Your task to perform on an android device: open app "Facebook" Image 0: 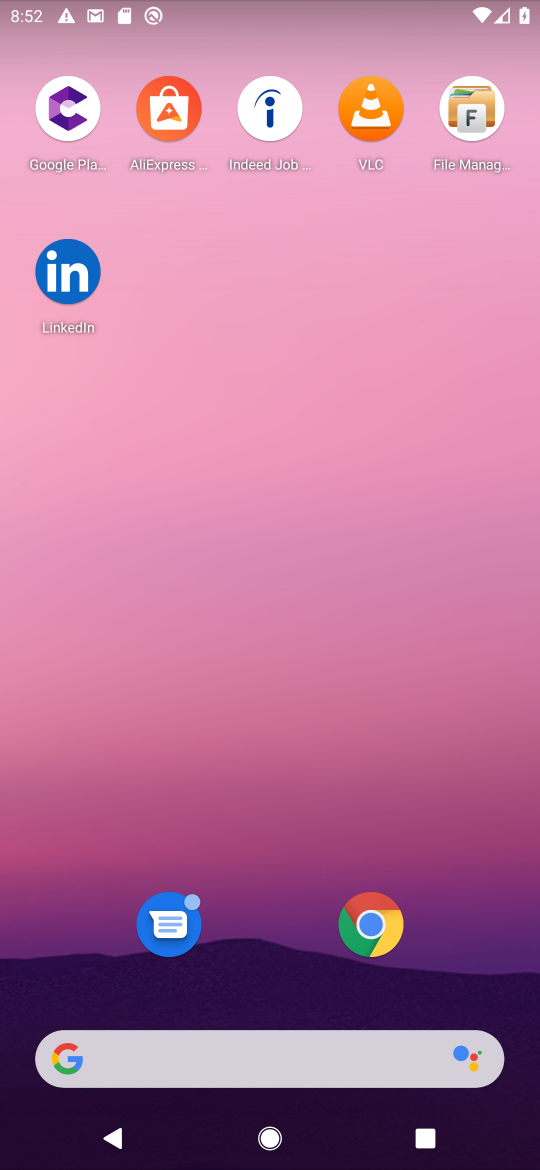
Step 0: press home button
Your task to perform on an android device: open app "Facebook" Image 1: 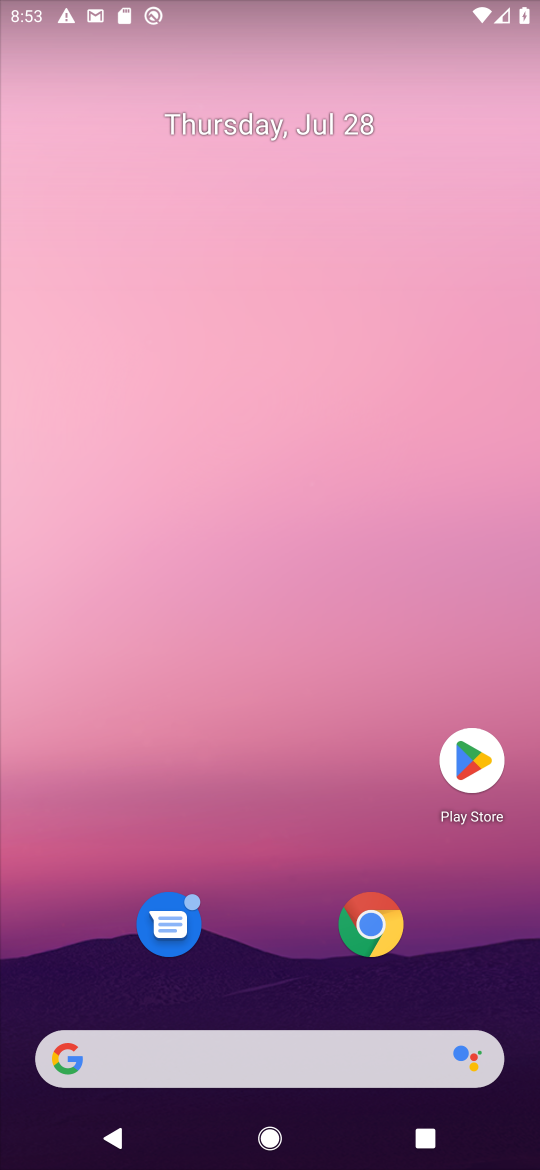
Step 1: click (472, 751)
Your task to perform on an android device: open app "Facebook" Image 2: 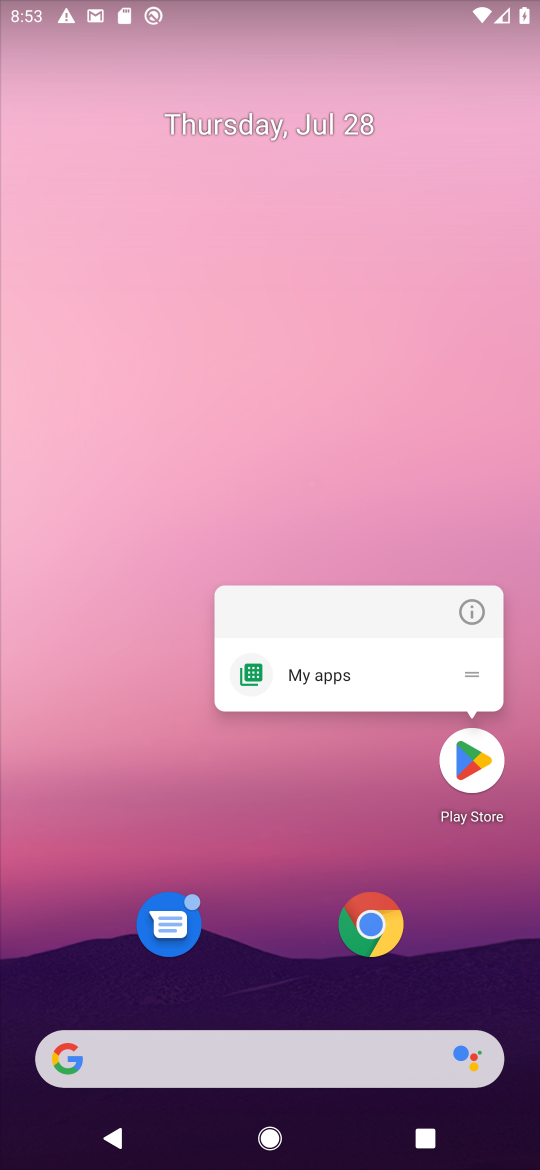
Step 2: click (456, 763)
Your task to perform on an android device: open app "Facebook" Image 3: 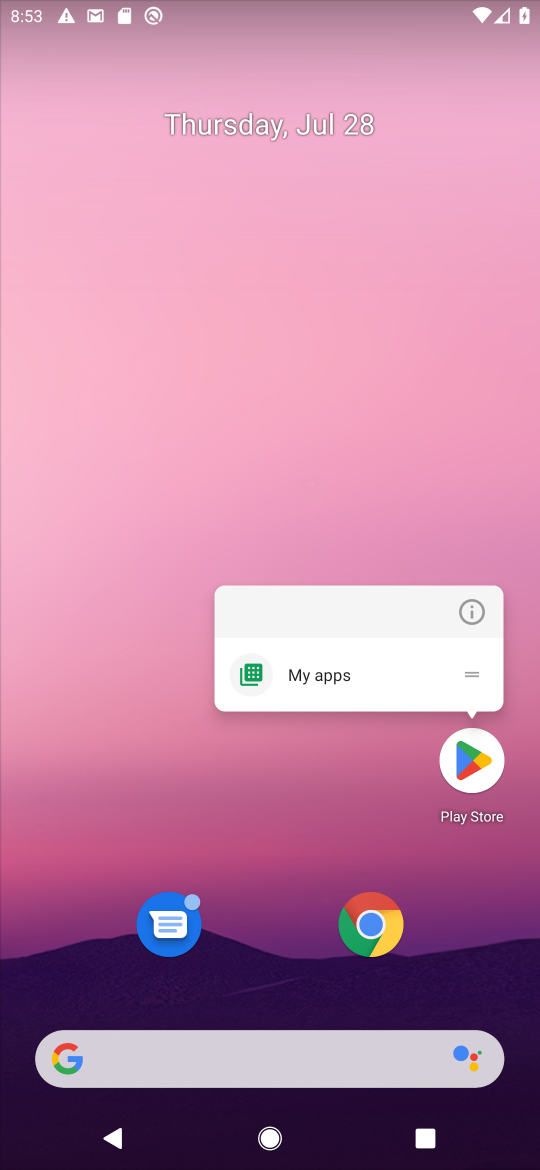
Step 3: click (470, 767)
Your task to perform on an android device: open app "Facebook" Image 4: 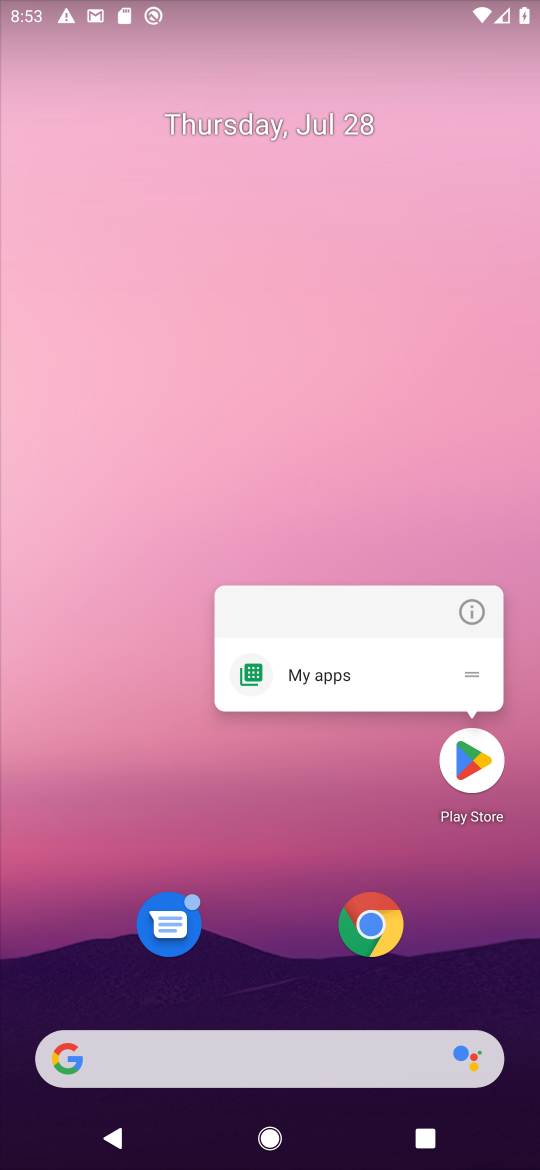
Step 4: click (470, 773)
Your task to perform on an android device: open app "Facebook" Image 5: 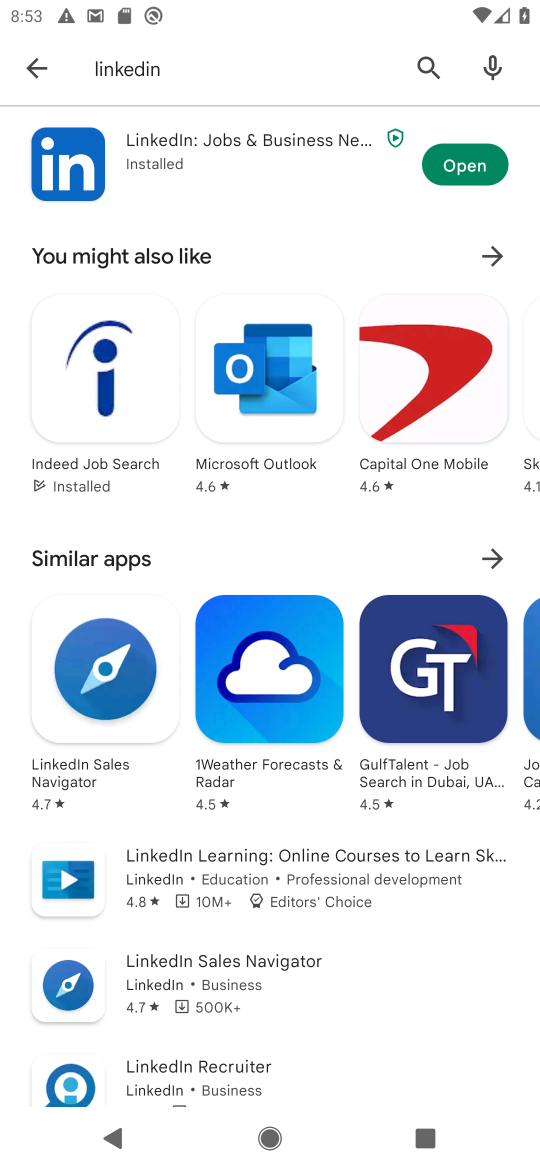
Step 5: click (423, 72)
Your task to perform on an android device: open app "Facebook" Image 6: 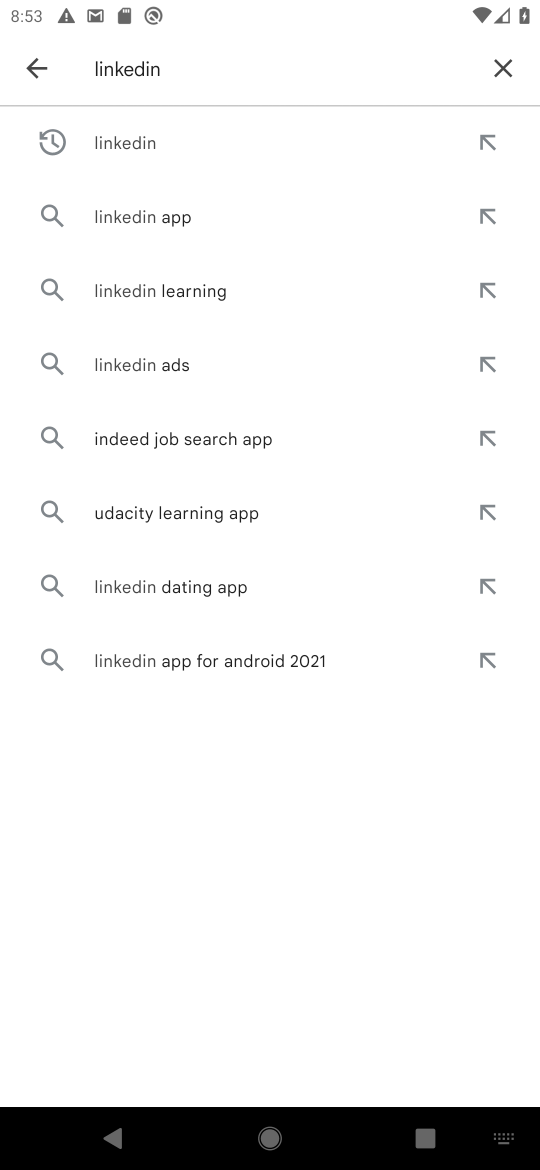
Step 6: click (503, 60)
Your task to perform on an android device: open app "Facebook" Image 7: 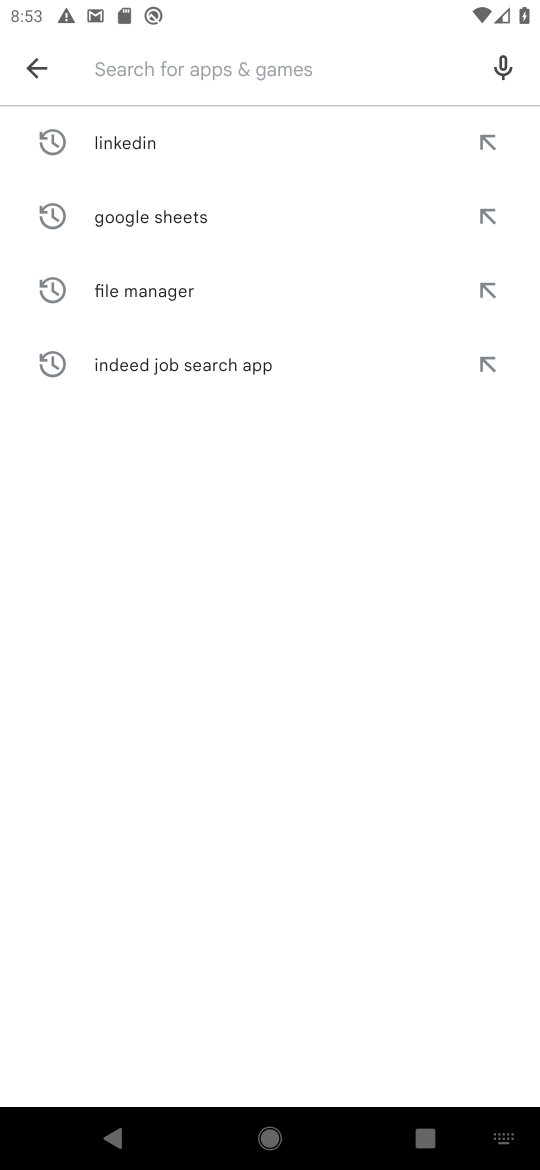
Step 7: type "Facebook"
Your task to perform on an android device: open app "Facebook" Image 8: 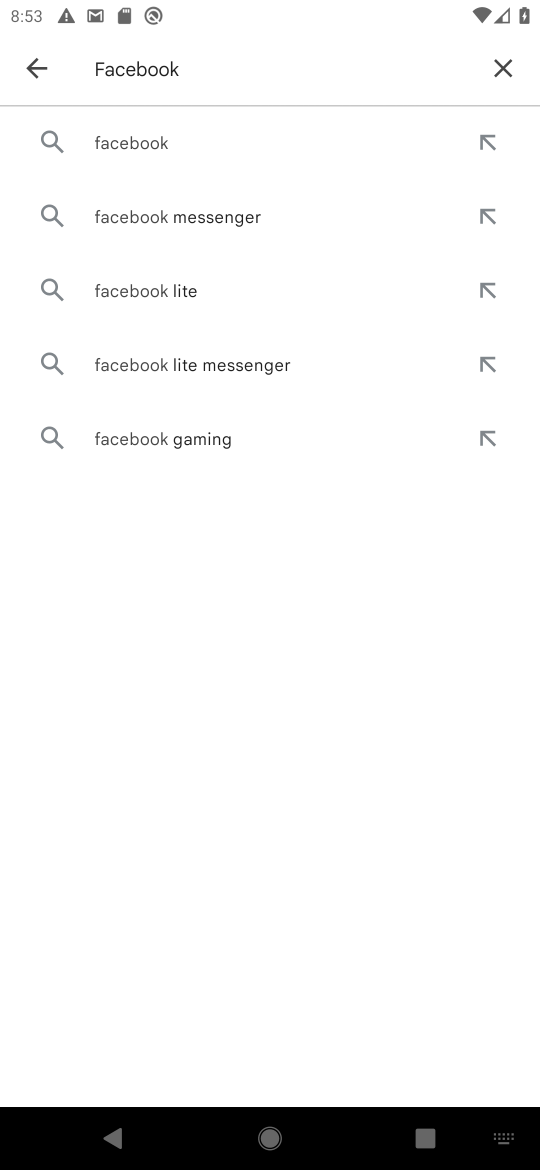
Step 8: click (147, 148)
Your task to perform on an android device: open app "Facebook" Image 9: 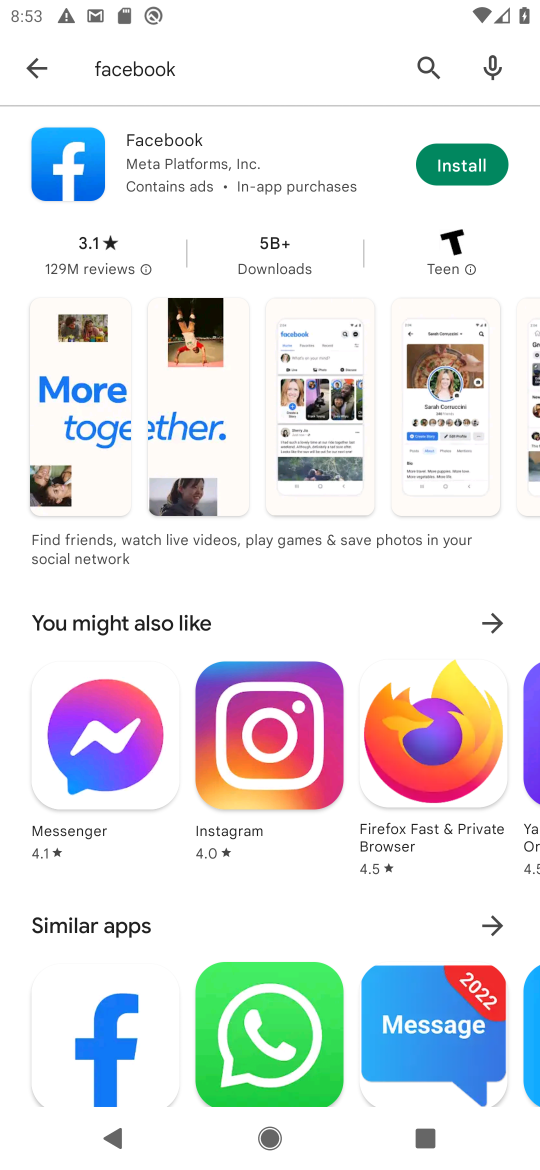
Step 9: task complete